Your task to perform on an android device: Go to Google Image 0: 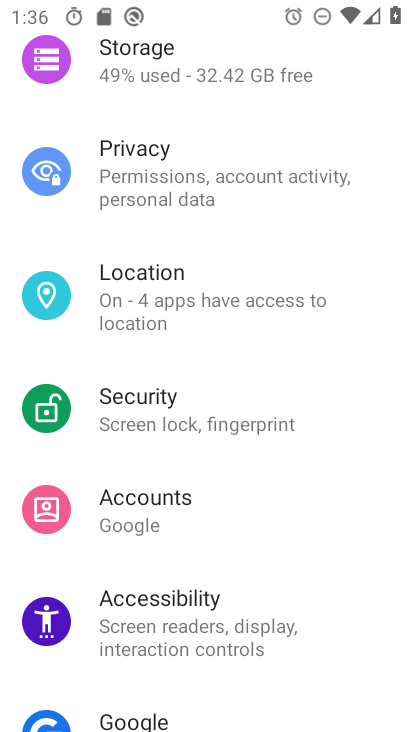
Step 0: press home button
Your task to perform on an android device: Go to Google Image 1: 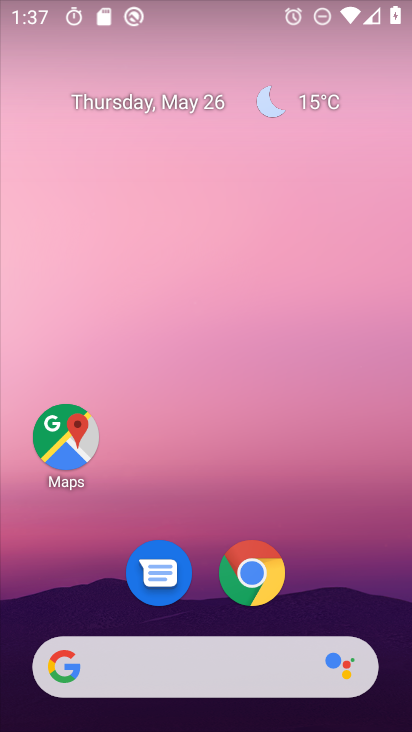
Step 1: drag from (354, 593) to (319, 26)
Your task to perform on an android device: Go to Google Image 2: 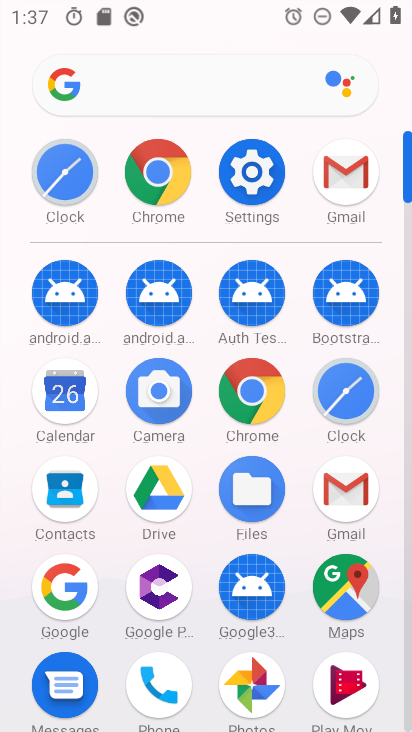
Step 2: click (60, 601)
Your task to perform on an android device: Go to Google Image 3: 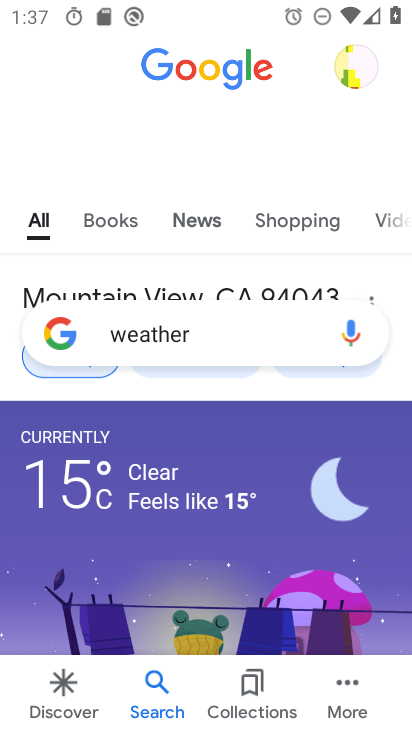
Step 3: task complete